Your task to perform on an android device: Show me productivity apps on the Play Store Image 0: 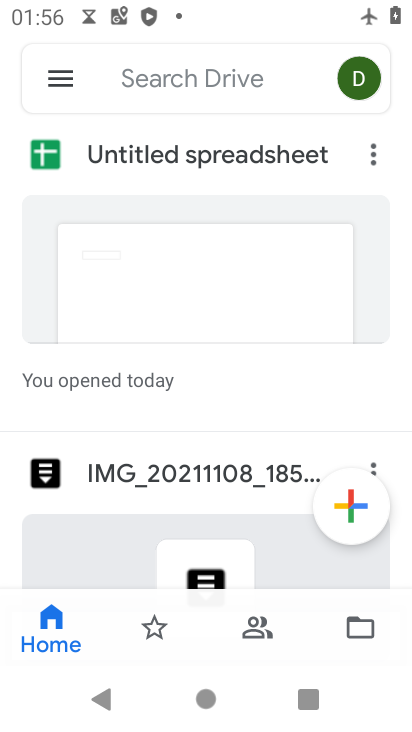
Step 0: press home button
Your task to perform on an android device: Show me productivity apps on the Play Store Image 1: 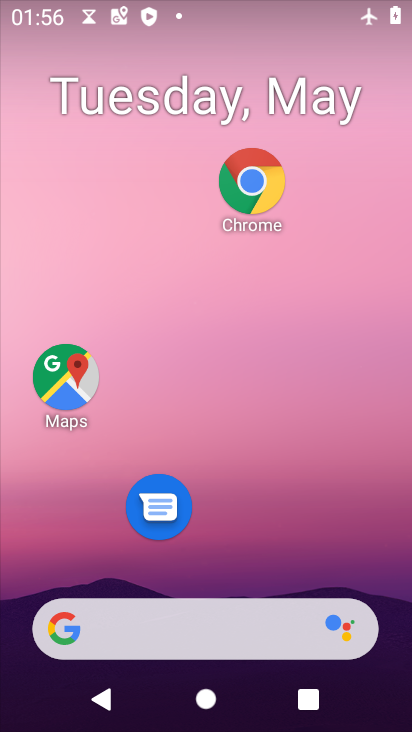
Step 1: drag from (260, 542) to (223, 306)
Your task to perform on an android device: Show me productivity apps on the Play Store Image 2: 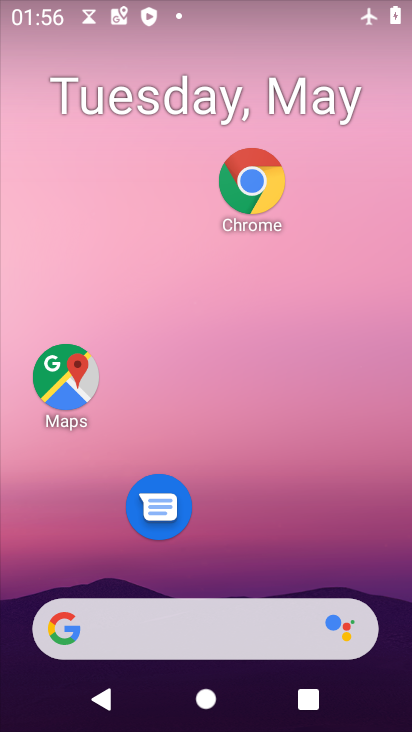
Step 2: drag from (182, 594) to (201, 326)
Your task to perform on an android device: Show me productivity apps on the Play Store Image 3: 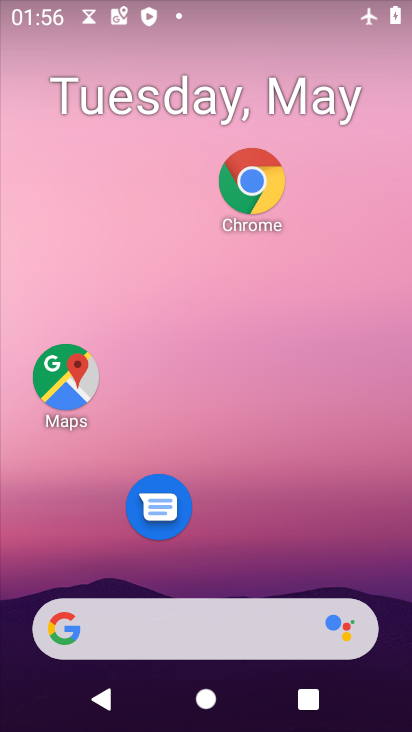
Step 3: drag from (190, 559) to (194, 272)
Your task to perform on an android device: Show me productivity apps on the Play Store Image 4: 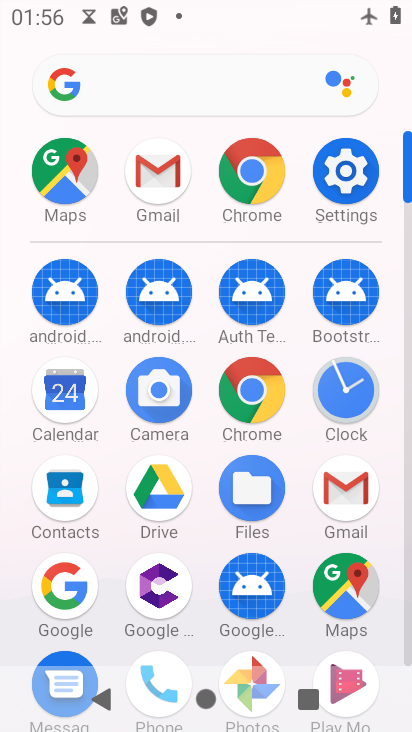
Step 4: drag from (186, 632) to (213, 441)
Your task to perform on an android device: Show me productivity apps on the Play Store Image 5: 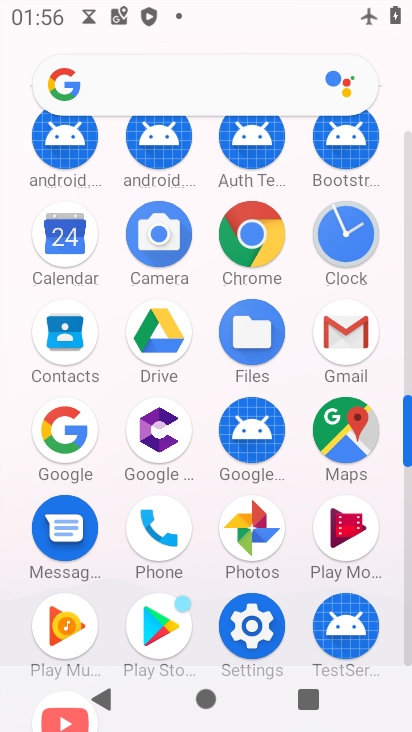
Step 5: click (161, 605)
Your task to perform on an android device: Show me productivity apps on the Play Store Image 6: 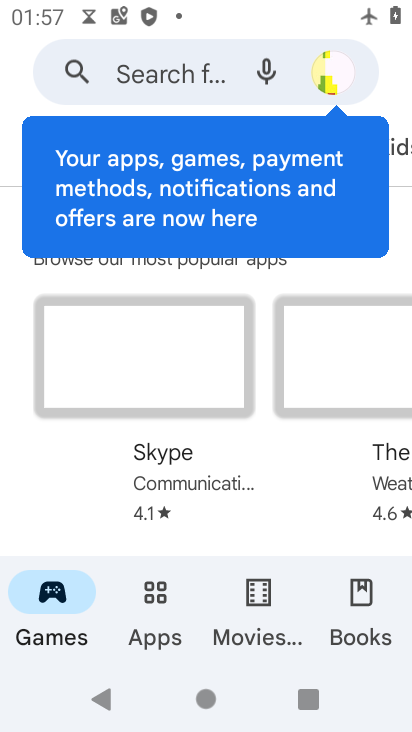
Step 6: click (156, 627)
Your task to perform on an android device: Show me productivity apps on the Play Store Image 7: 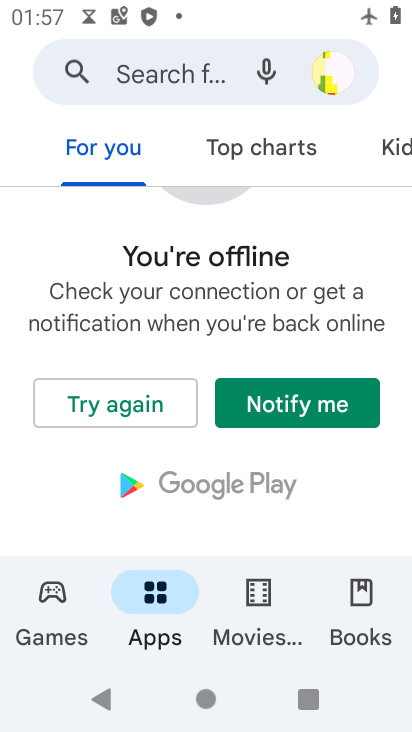
Step 7: task complete